Your task to perform on an android device: Add amazon basics triple a to the cart on newegg Image 0: 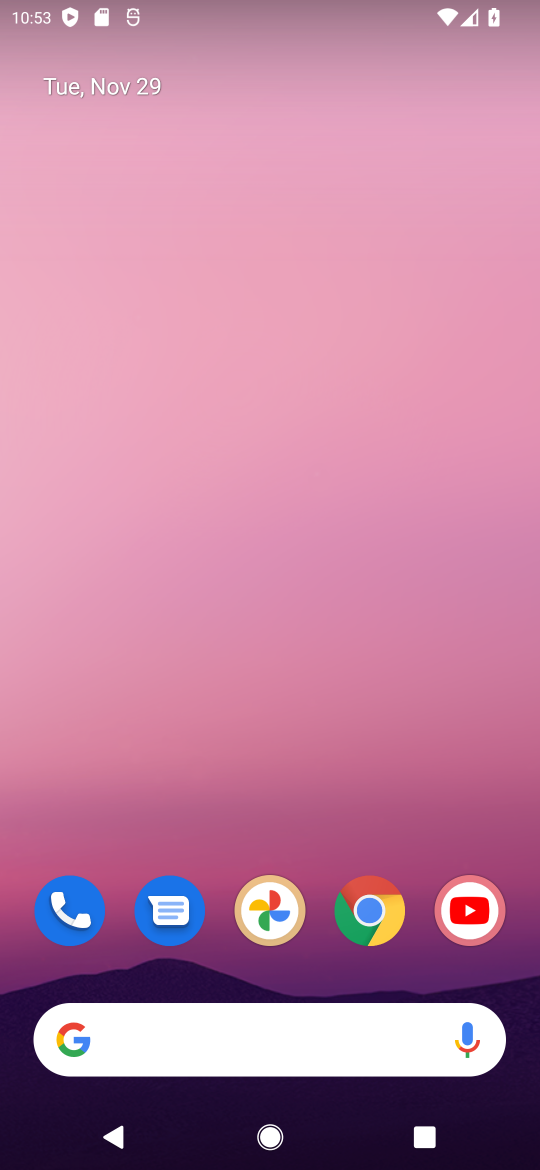
Step 0: click (375, 917)
Your task to perform on an android device: Add amazon basics triple a to the cart on newegg Image 1: 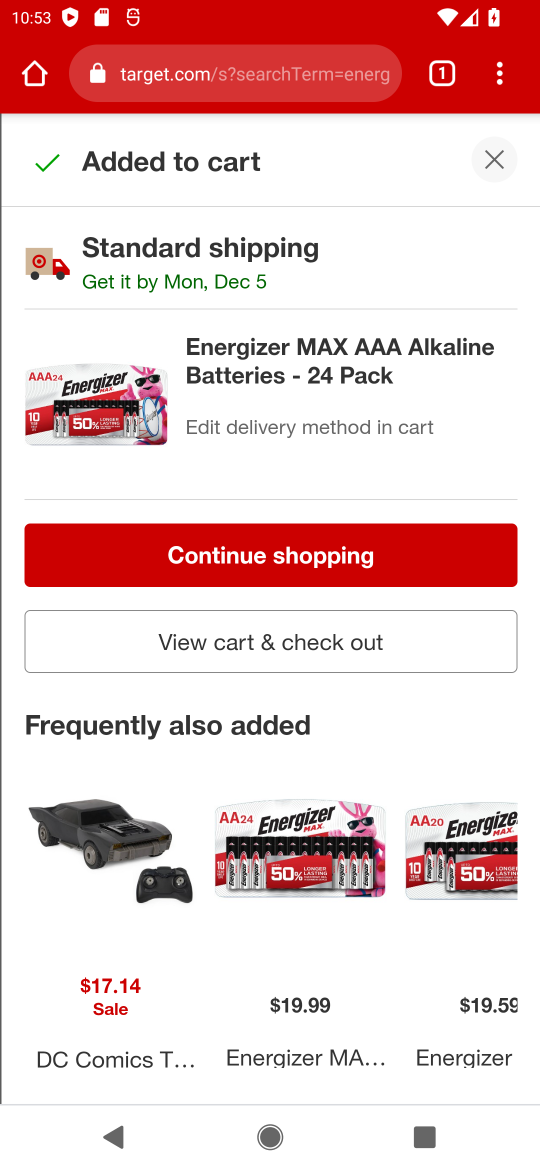
Step 1: click (214, 77)
Your task to perform on an android device: Add amazon basics triple a to the cart on newegg Image 2: 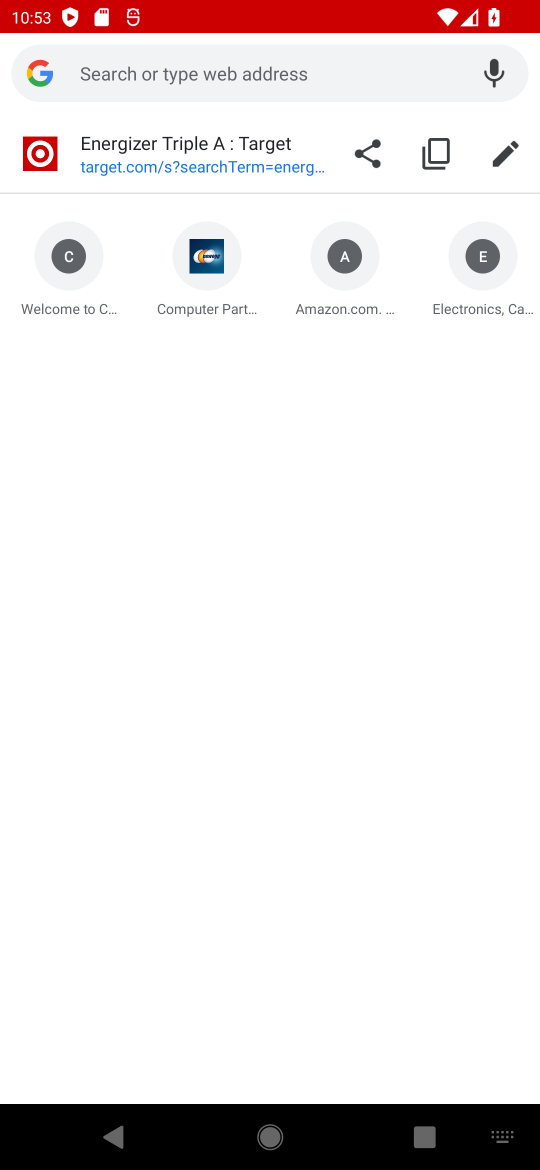
Step 2: click (203, 253)
Your task to perform on an android device: Add amazon basics triple a to the cart on newegg Image 3: 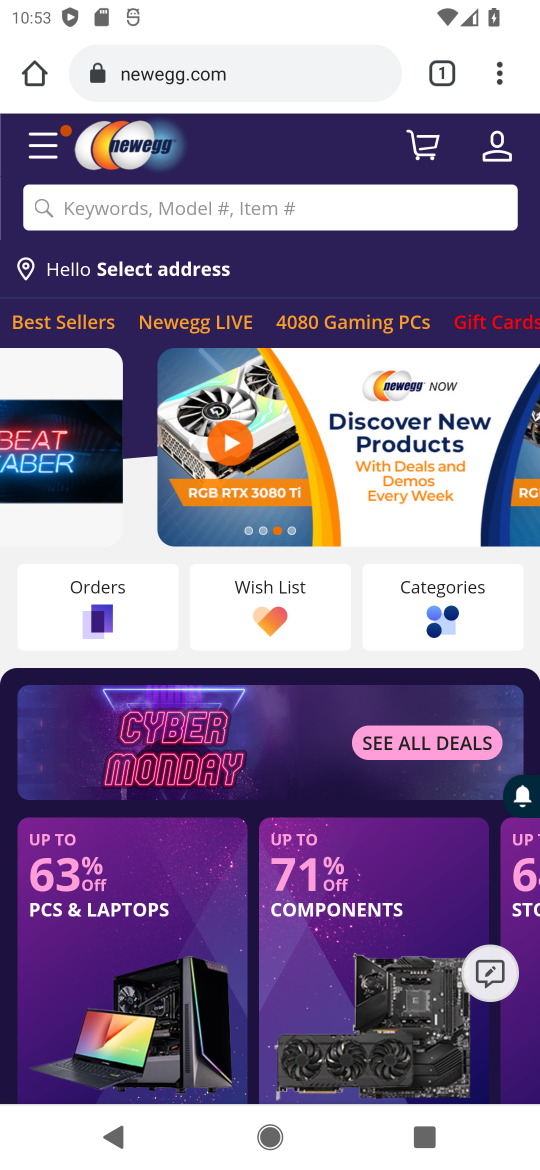
Step 3: click (145, 195)
Your task to perform on an android device: Add amazon basics triple a to the cart on newegg Image 4: 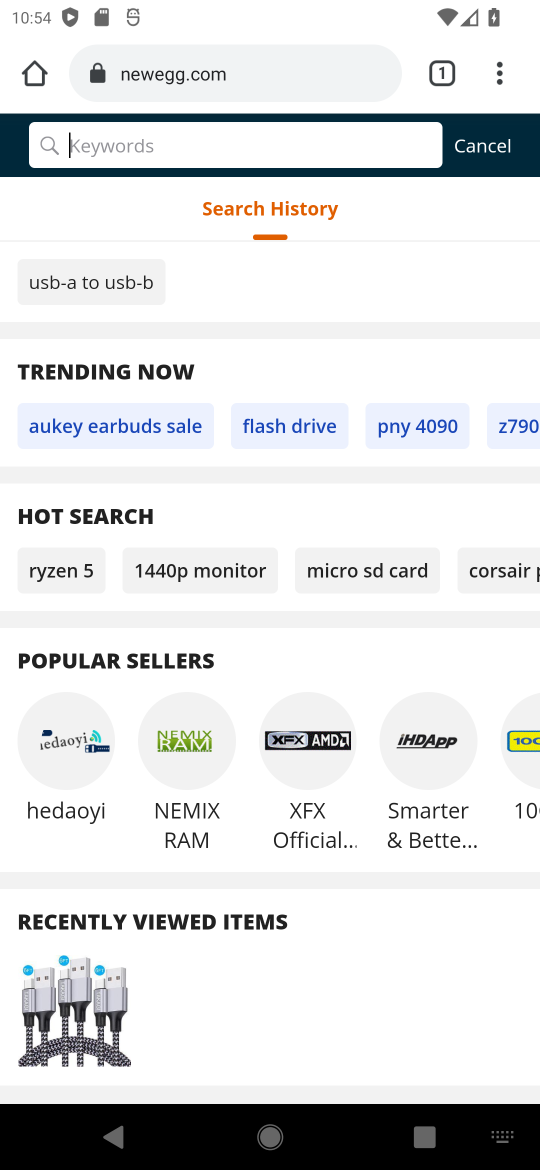
Step 4: type "amazon basics triple a"
Your task to perform on an android device: Add amazon basics triple a to the cart on newegg Image 5: 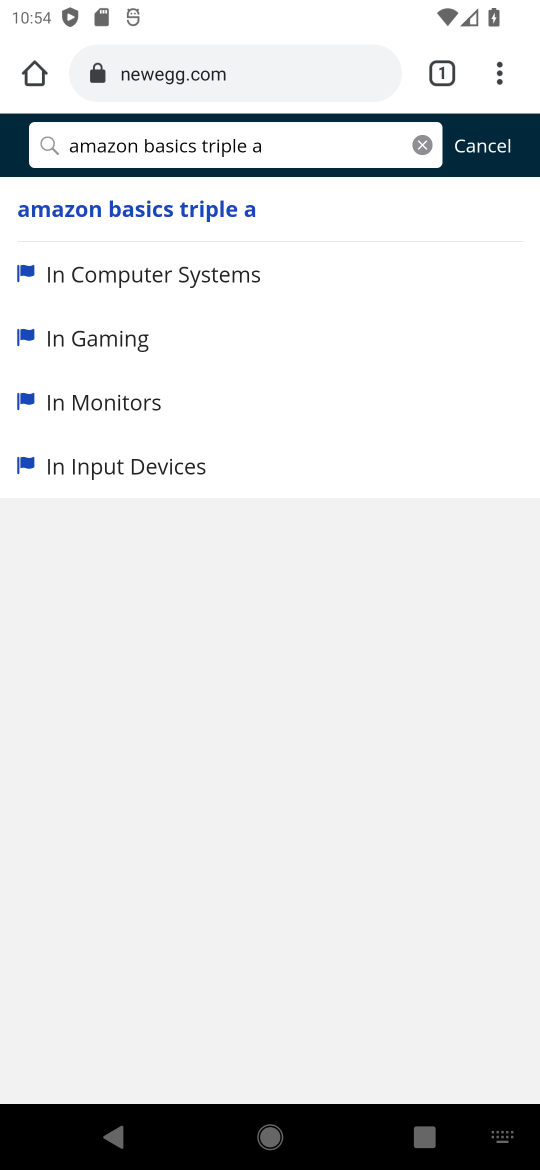
Step 5: click (135, 211)
Your task to perform on an android device: Add amazon basics triple a to the cart on newegg Image 6: 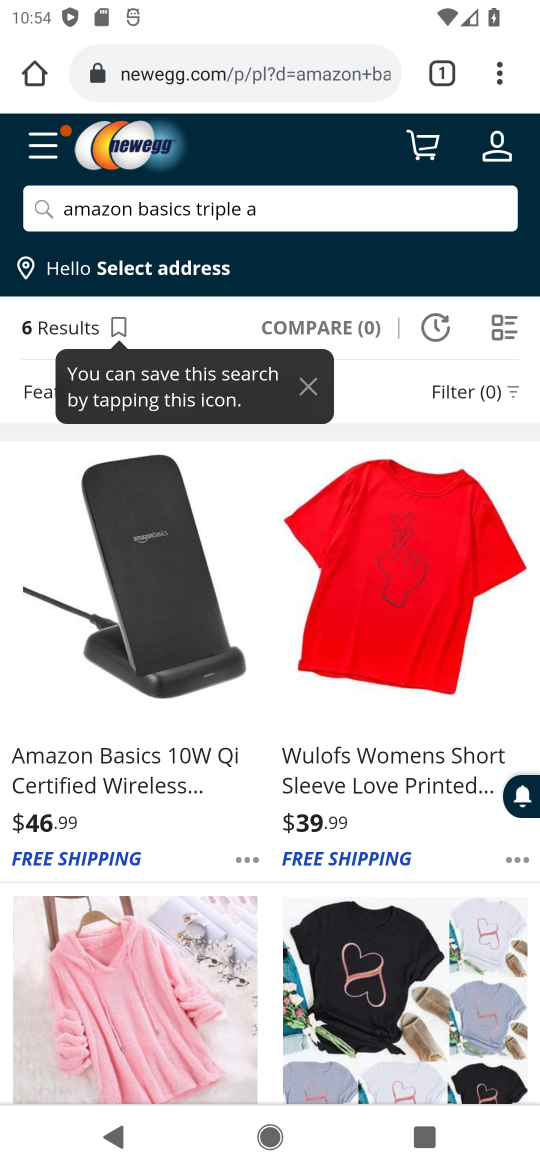
Step 6: task complete